Your task to perform on an android device: turn pop-ups on in chrome Image 0: 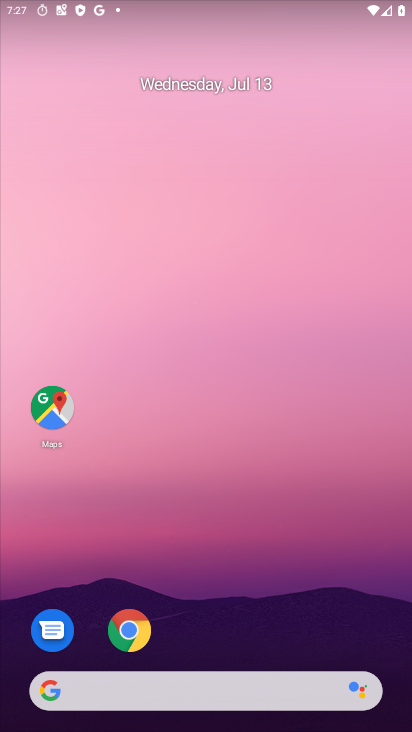
Step 0: drag from (393, 627) to (234, 34)
Your task to perform on an android device: turn pop-ups on in chrome Image 1: 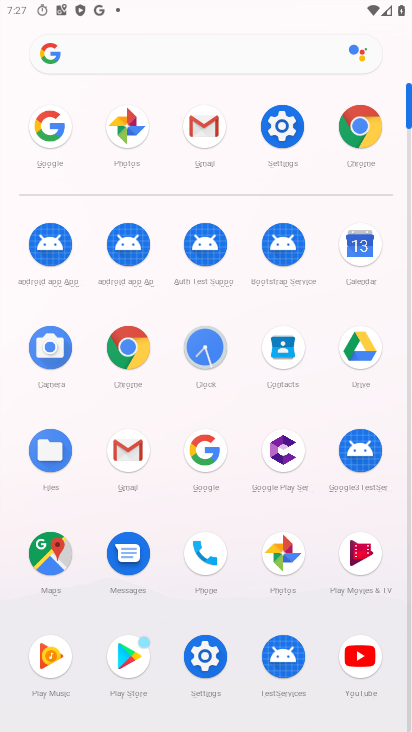
Step 1: click (361, 124)
Your task to perform on an android device: turn pop-ups on in chrome Image 2: 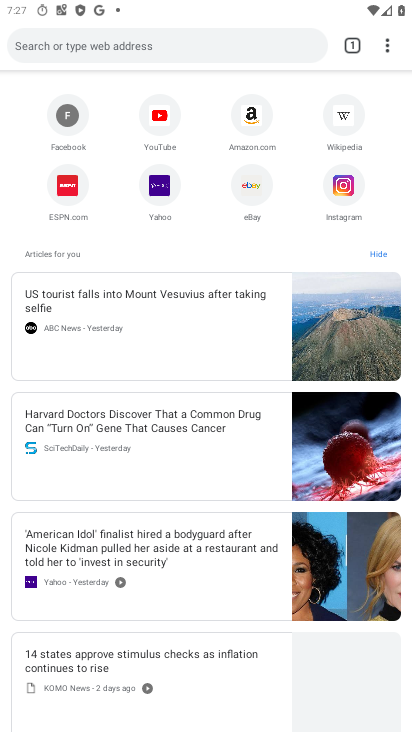
Step 2: click (384, 45)
Your task to perform on an android device: turn pop-ups on in chrome Image 3: 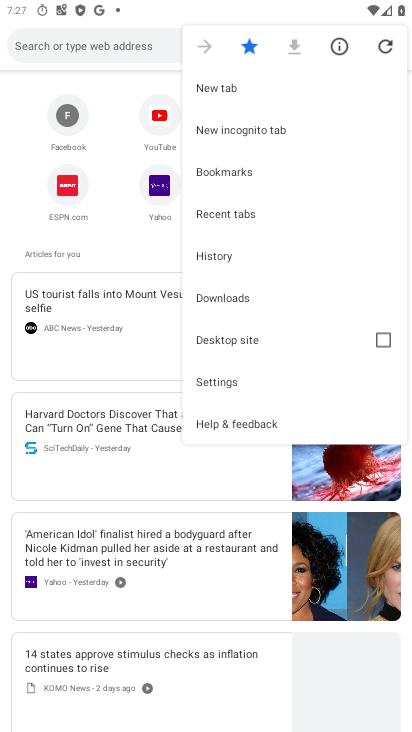
Step 3: click (208, 381)
Your task to perform on an android device: turn pop-ups on in chrome Image 4: 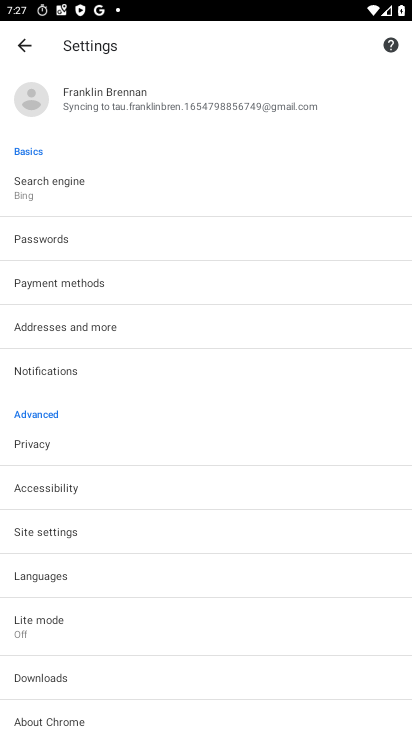
Step 4: click (115, 532)
Your task to perform on an android device: turn pop-ups on in chrome Image 5: 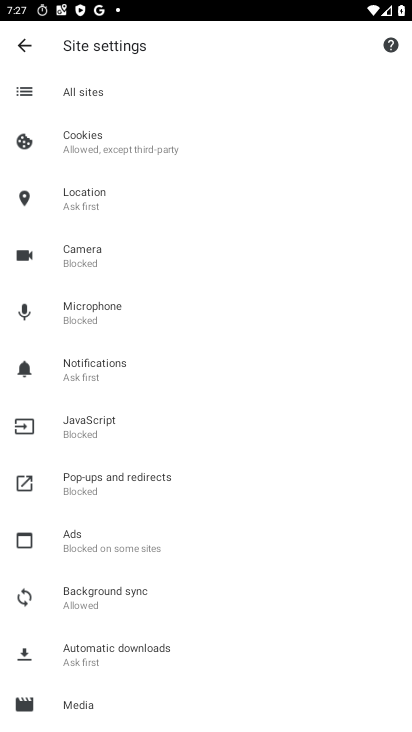
Step 5: click (117, 486)
Your task to perform on an android device: turn pop-ups on in chrome Image 6: 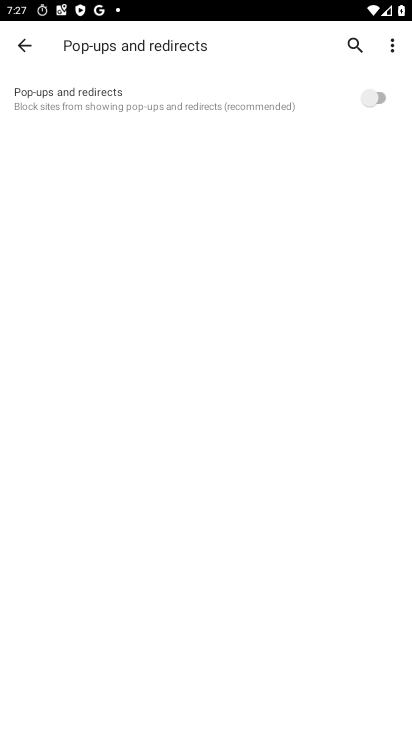
Step 6: click (367, 94)
Your task to perform on an android device: turn pop-ups on in chrome Image 7: 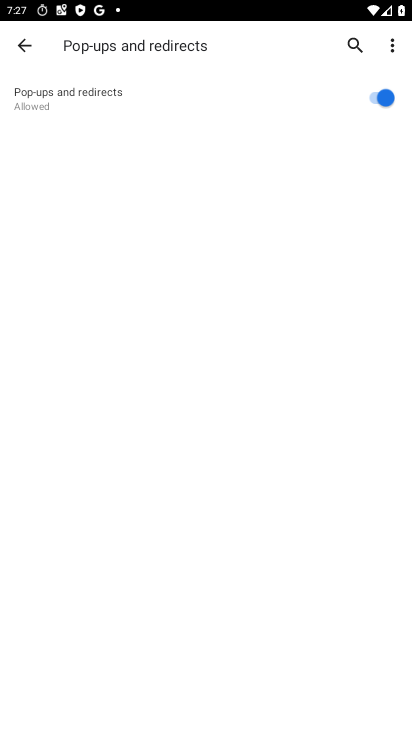
Step 7: task complete